Your task to perform on an android device: Go to Google maps Image 0: 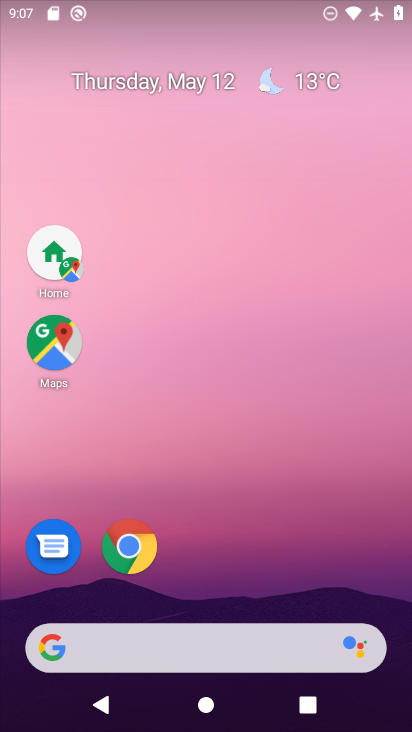
Step 0: click (55, 356)
Your task to perform on an android device: Go to Google maps Image 1: 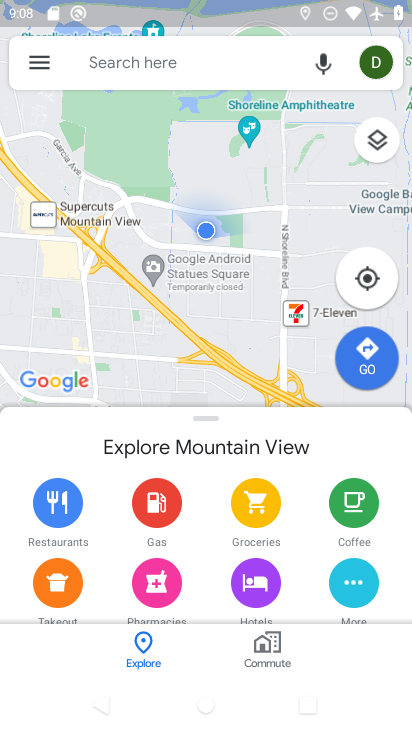
Step 1: task complete